Your task to perform on an android device: find photos in the google photos app Image 0: 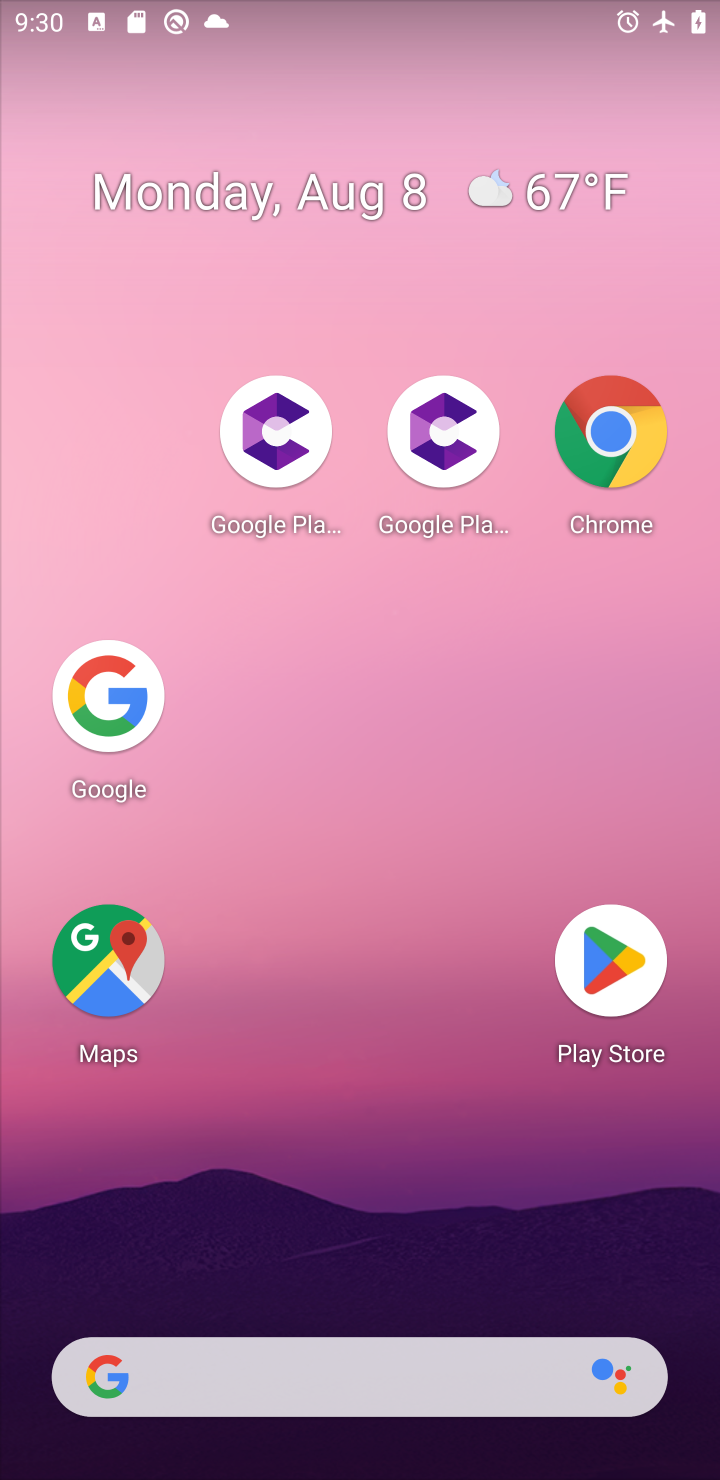
Step 0: drag from (287, 796) to (249, 218)
Your task to perform on an android device: find photos in the google photos app Image 1: 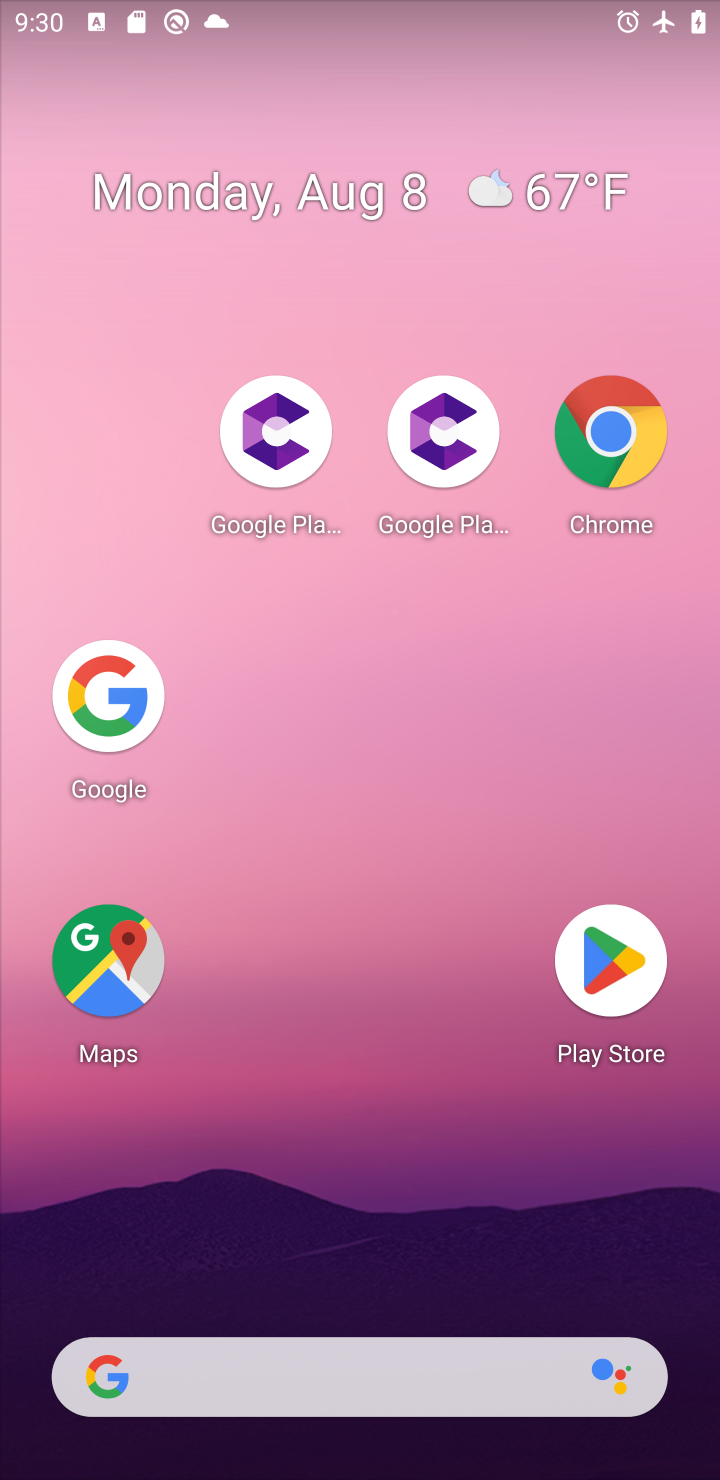
Step 1: drag from (339, 1085) to (225, 465)
Your task to perform on an android device: find photos in the google photos app Image 2: 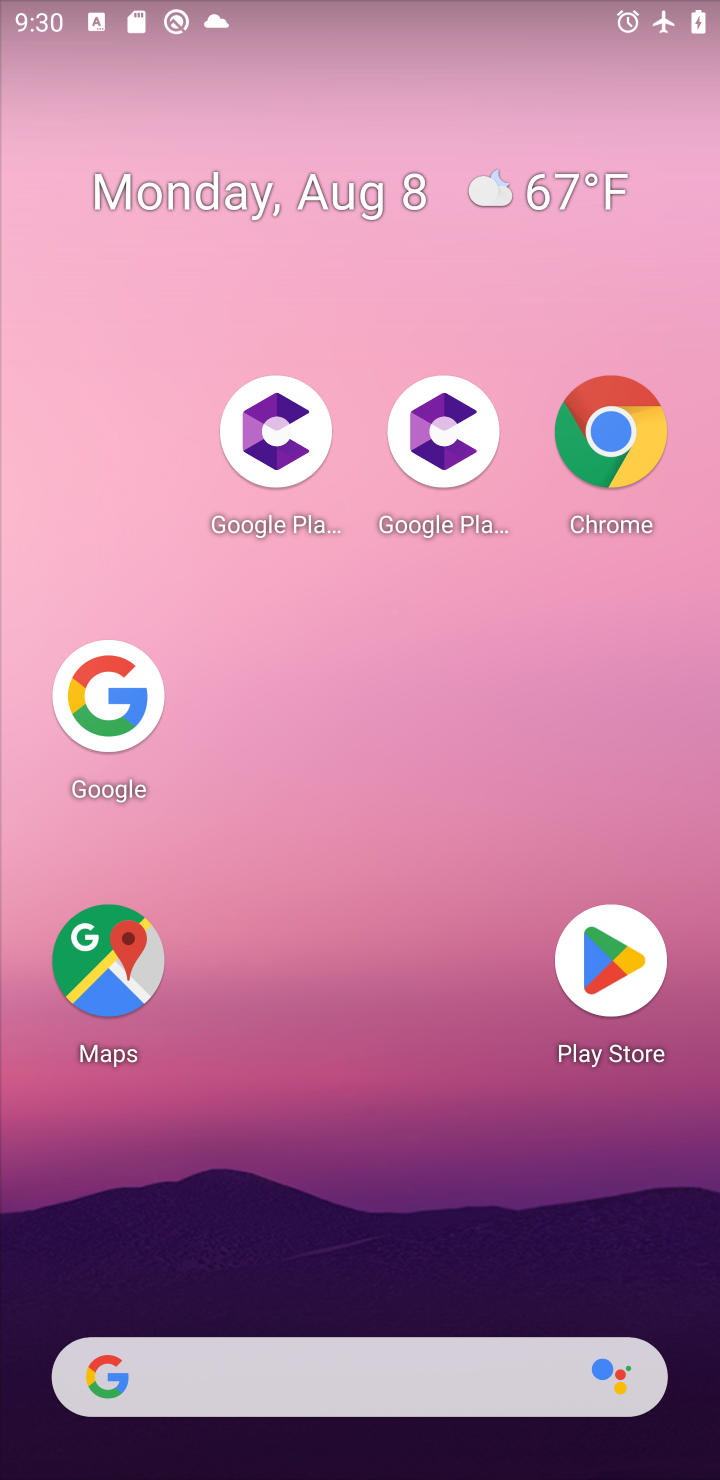
Step 2: drag from (433, 761) to (454, 72)
Your task to perform on an android device: find photos in the google photos app Image 3: 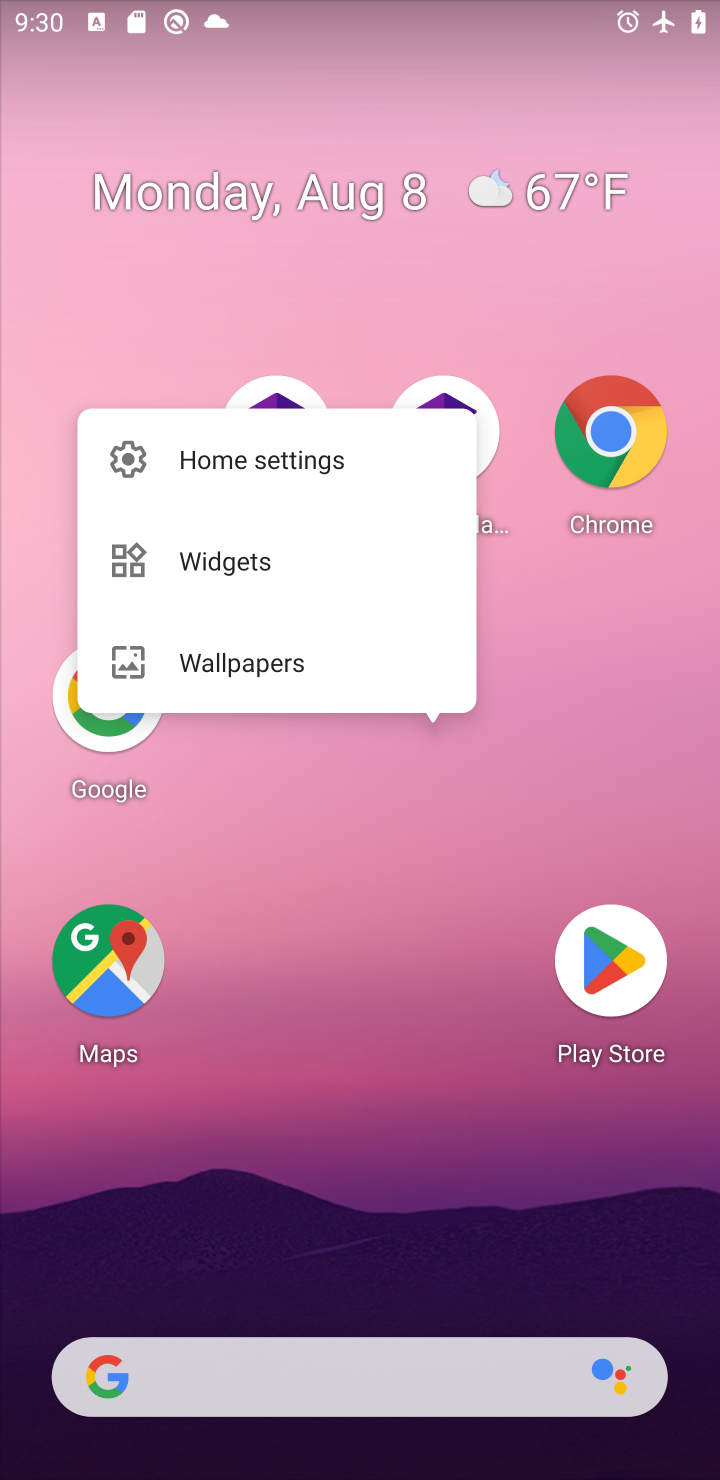
Step 3: drag from (398, 1304) to (356, 125)
Your task to perform on an android device: find photos in the google photos app Image 4: 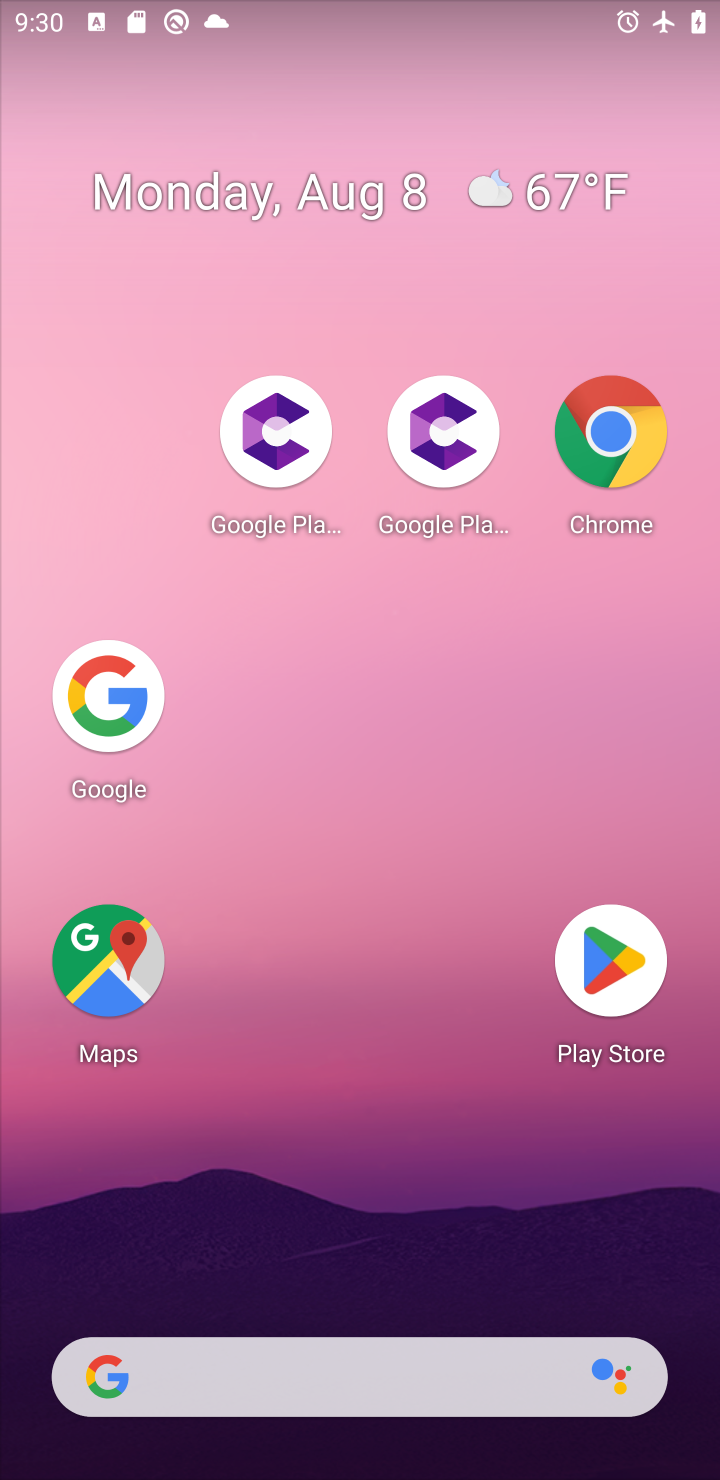
Step 4: drag from (270, 1215) to (219, 39)
Your task to perform on an android device: find photos in the google photos app Image 5: 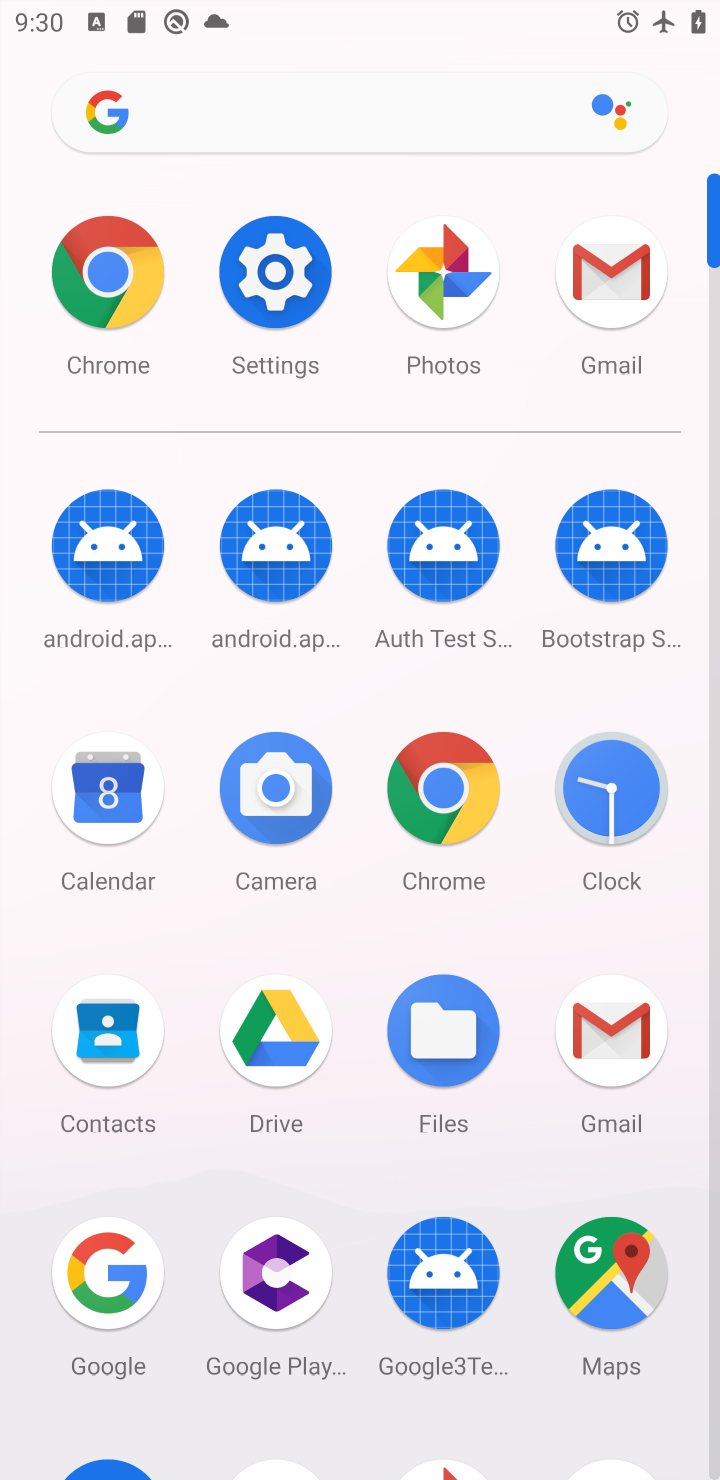
Step 5: click (437, 336)
Your task to perform on an android device: find photos in the google photos app Image 6: 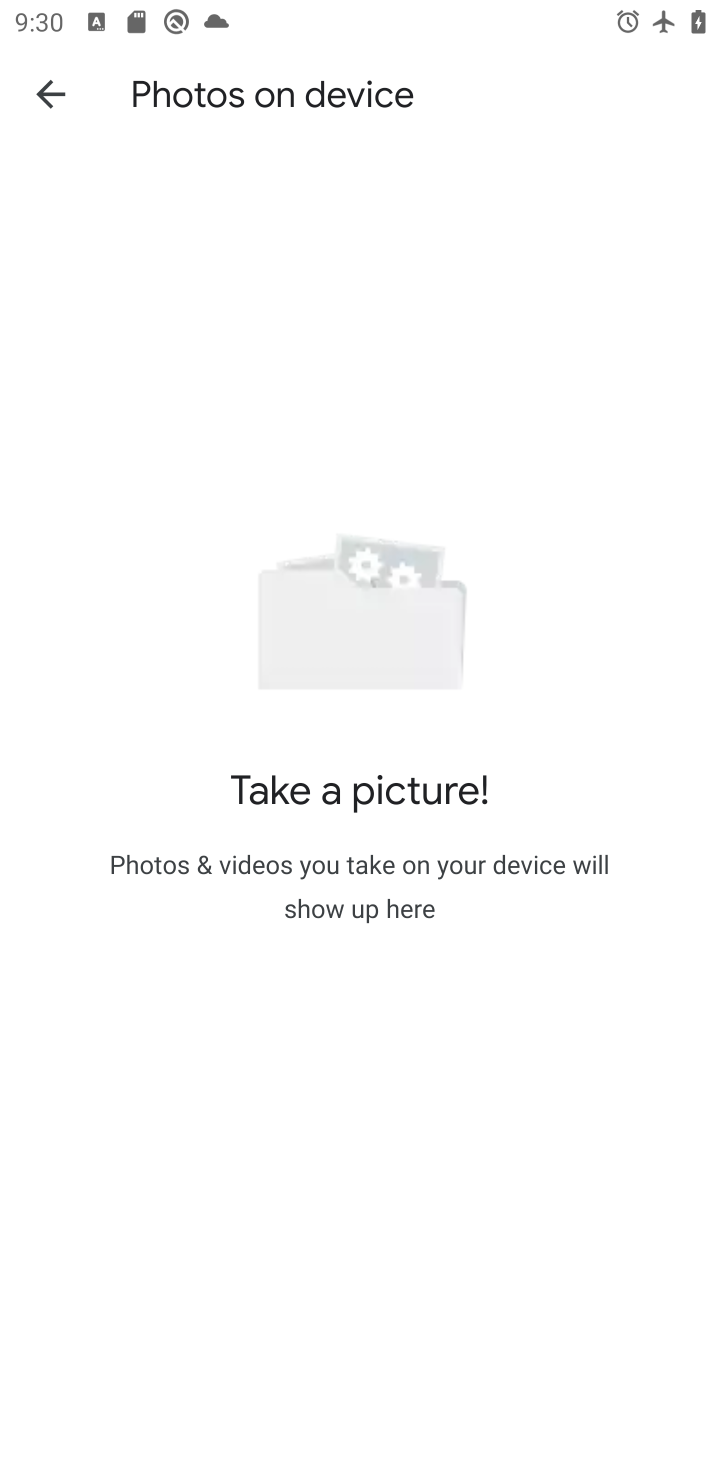
Step 6: task complete